Your task to perform on an android device: turn on the 24-hour format for clock Image 0: 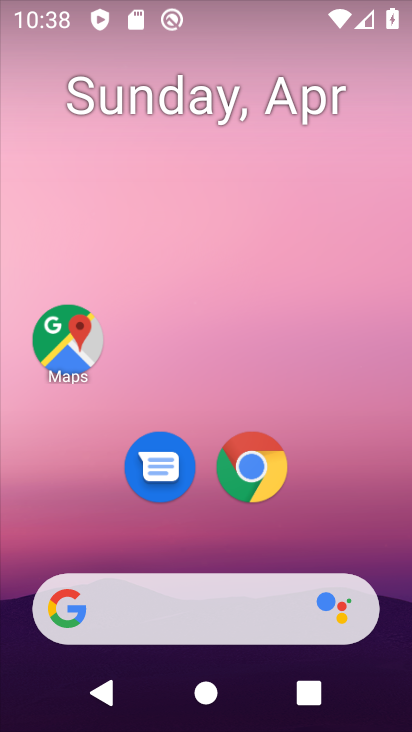
Step 0: drag from (220, 533) to (203, 73)
Your task to perform on an android device: turn on the 24-hour format for clock Image 1: 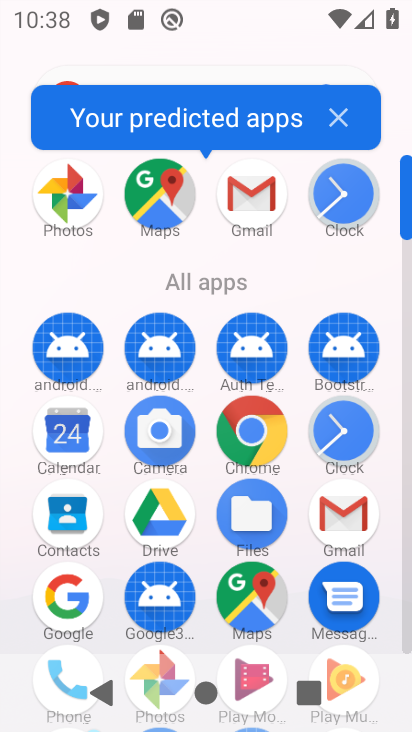
Step 1: click (345, 429)
Your task to perform on an android device: turn on the 24-hour format for clock Image 2: 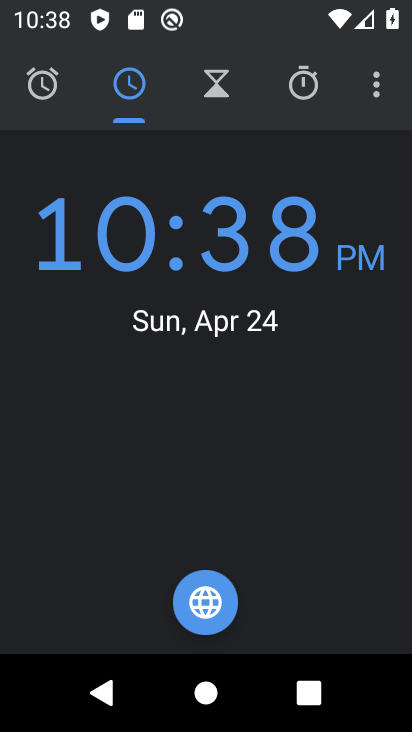
Step 2: click (371, 82)
Your task to perform on an android device: turn on the 24-hour format for clock Image 3: 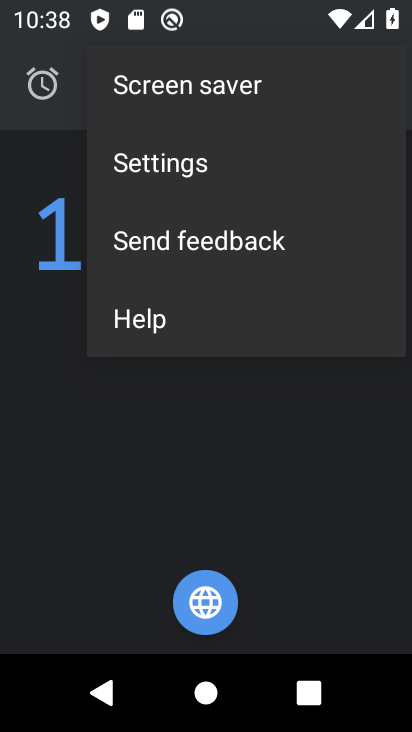
Step 3: click (269, 172)
Your task to perform on an android device: turn on the 24-hour format for clock Image 4: 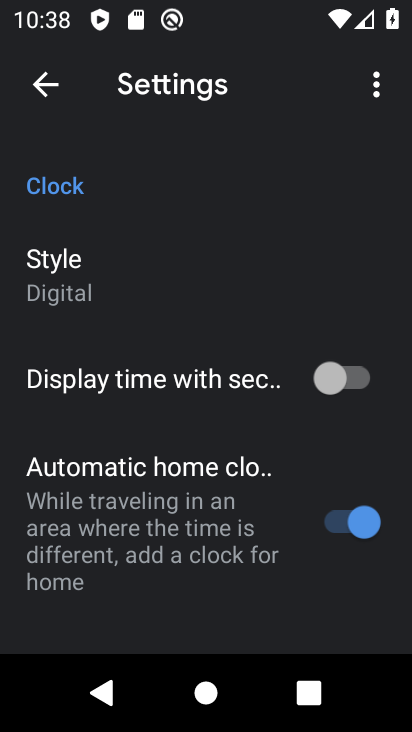
Step 4: drag from (240, 573) to (273, 119)
Your task to perform on an android device: turn on the 24-hour format for clock Image 5: 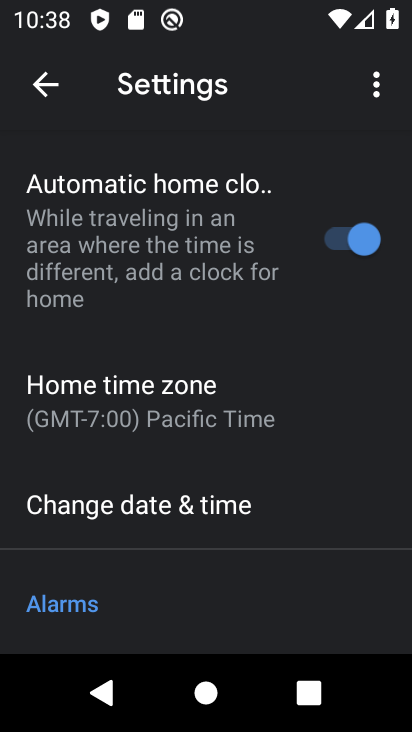
Step 5: click (171, 504)
Your task to perform on an android device: turn on the 24-hour format for clock Image 6: 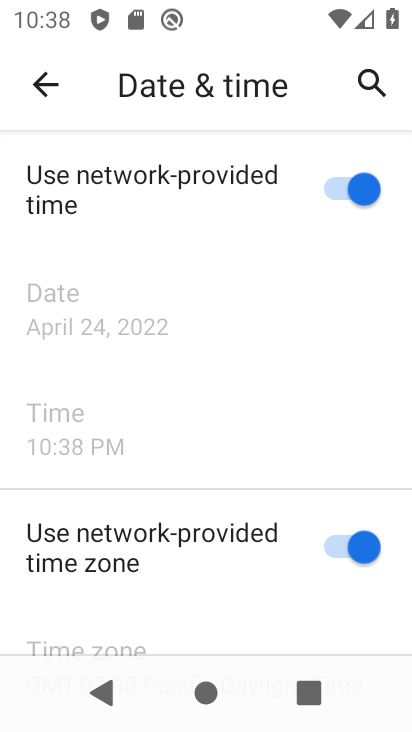
Step 6: drag from (227, 567) to (303, 22)
Your task to perform on an android device: turn on the 24-hour format for clock Image 7: 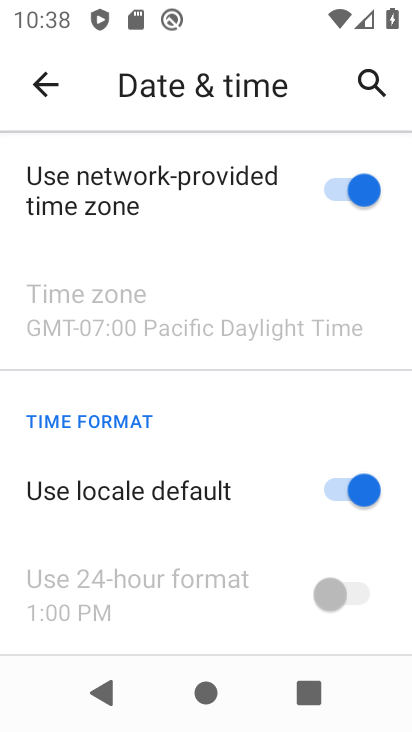
Step 7: click (346, 498)
Your task to perform on an android device: turn on the 24-hour format for clock Image 8: 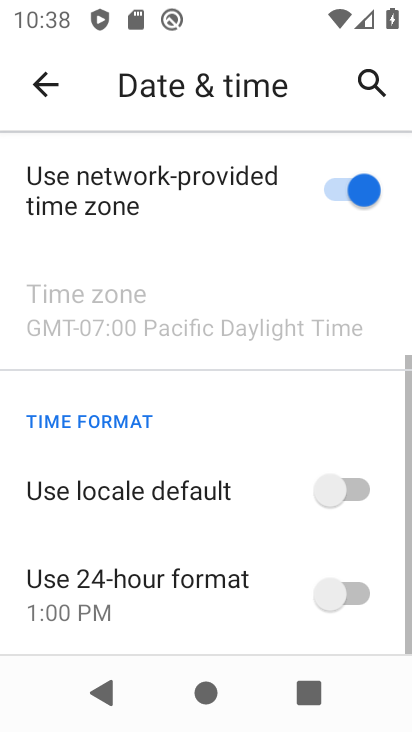
Step 8: click (332, 597)
Your task to perform on an android device: turn on the 24-hour format for clock Image 9: 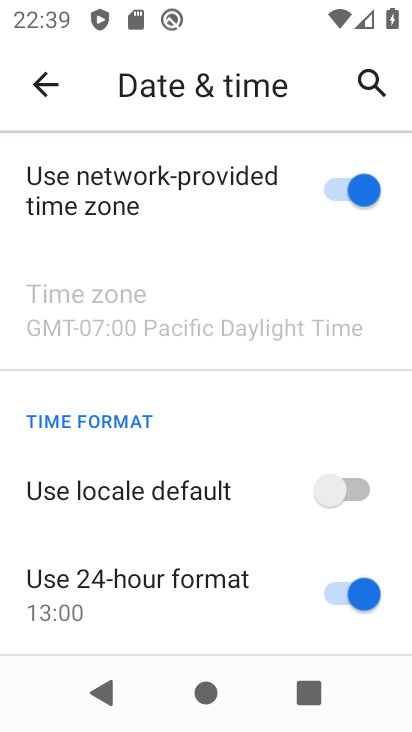
Step 9: task complete